Your task to perform on an android device: check google app version Image 0: 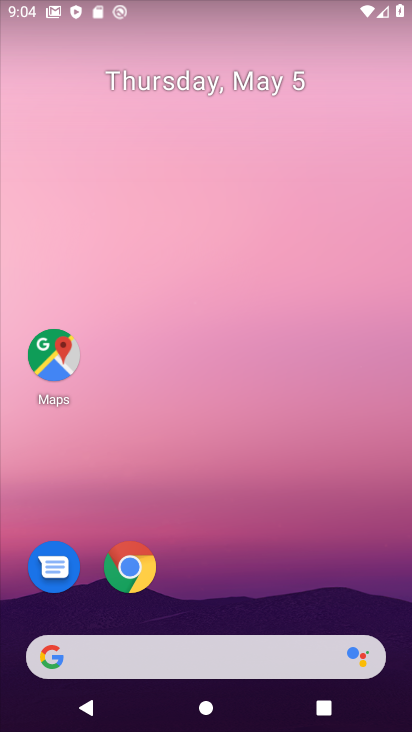
Step 0: drag from (232, 602) to (248, 100)
Your task to perform on an android device: check google app version Image 1: 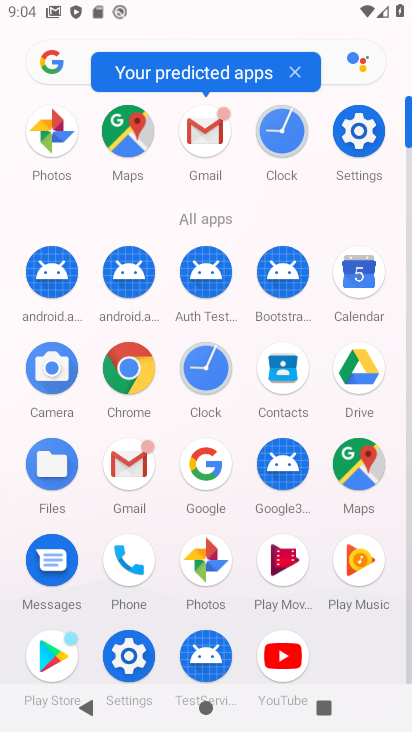
Step 1: drag from (89, 609) to (115, 319)
Your task to perform on an android device: check google app version Image 2: 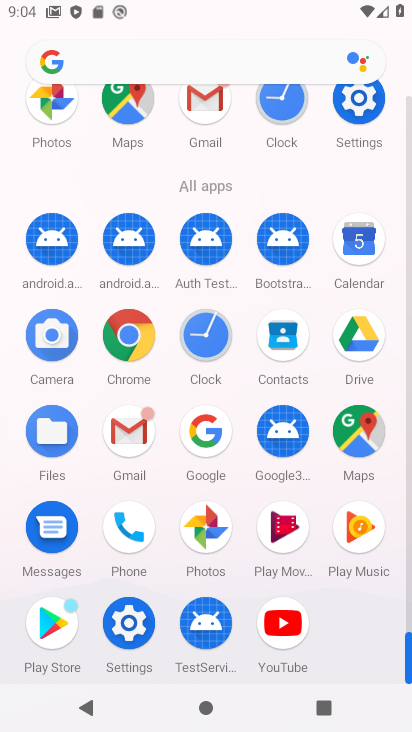
Step 2: drag from (223, 209) to (235, 596)
Your task to perform on an android device: check google app version Image 3: 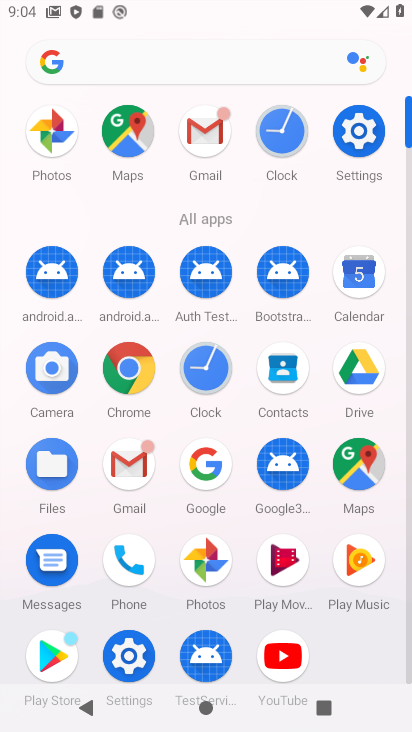
Step 3: click (222, 469)
Your task to perform on an android device: check google app version Image 4: 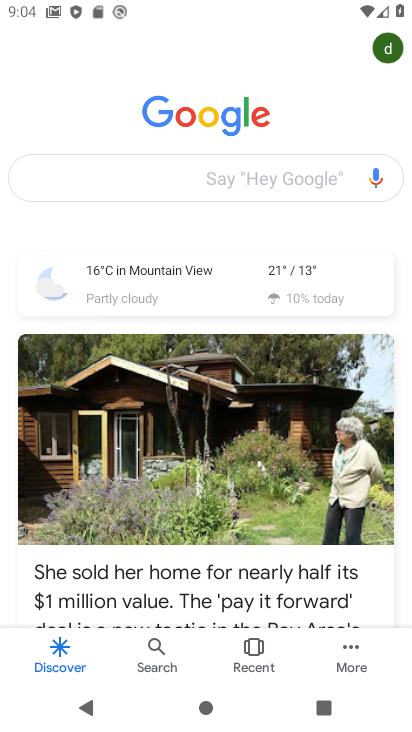
Step 4: click (381, 60)
Your task to perform on an android device: check google app version Image 5: 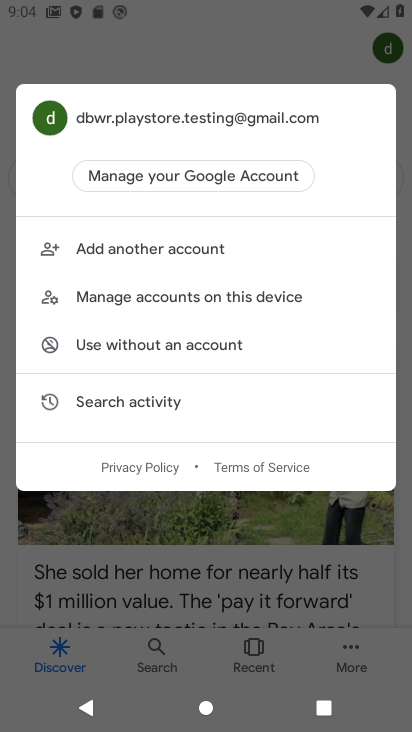
Step 5: click (110, 571)
Your task to perform on an android device: check google app version Image 6: 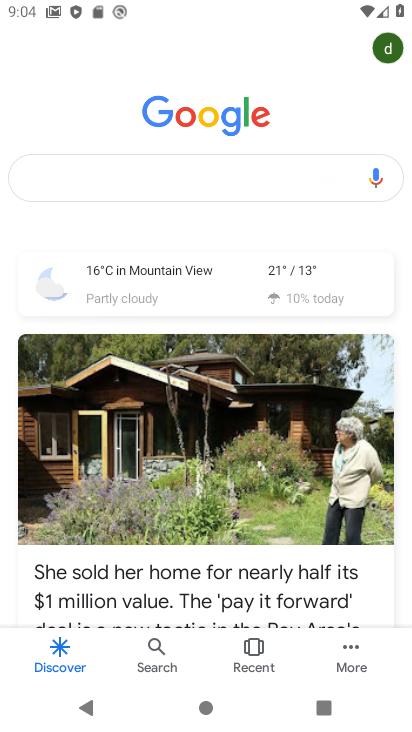
Step 6: click (348, 664)
Your task to perform on an android device: check google app version Image 7: 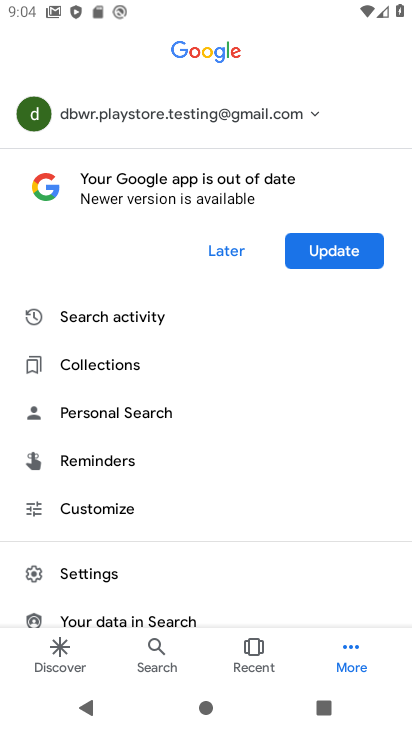
Step 7: drag from (183, 602) to (157, 284)
Your task to perform on an android device: check google app version Image 8: 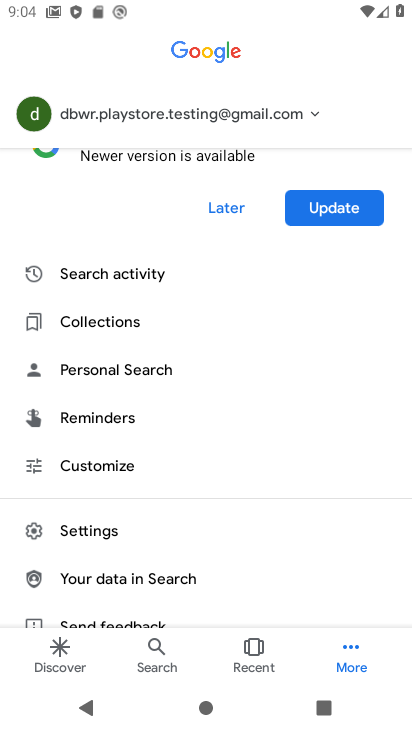
Step 8: drag from (157, 551) to (159, 280)
Your task to perform on an android device: check google app version Image 9: 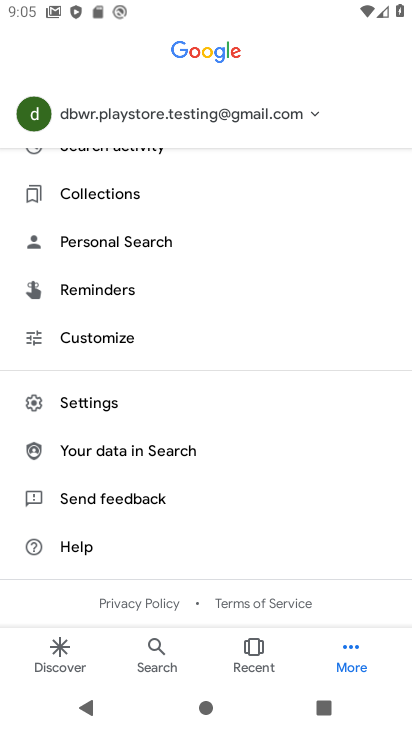
Step 9: drag from (148, 542) to (167, 296)
Your task to perform on an android device: check google app version Image 10: 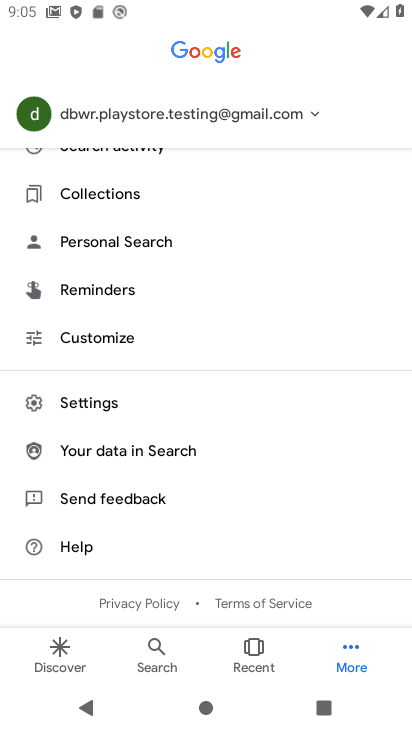
Step 10: drag from (217, 246) to (208, 300)
Your task to perform on an android device: check google app version Image 11: 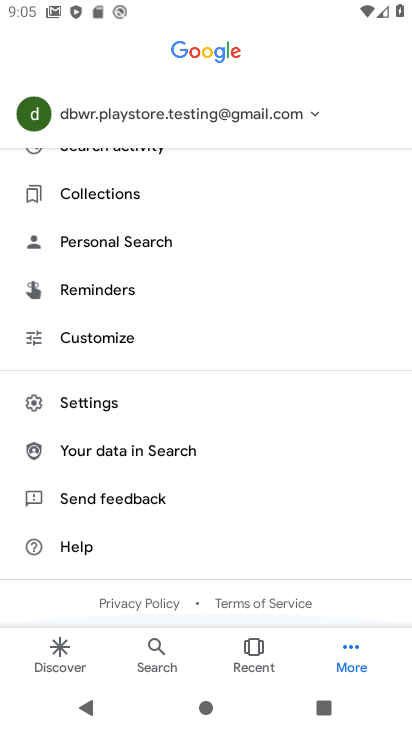
Step 11: drag from (205, 489) to (261, 400)
Your task to perform on an android device: check google app version Image 12: 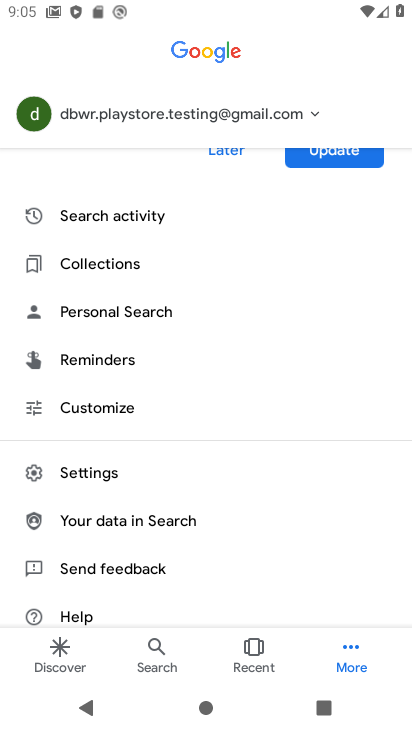
Step 12: drag from (112, 543) to (145, 338)
Your task to perform on an android device: check google app version Image 13: 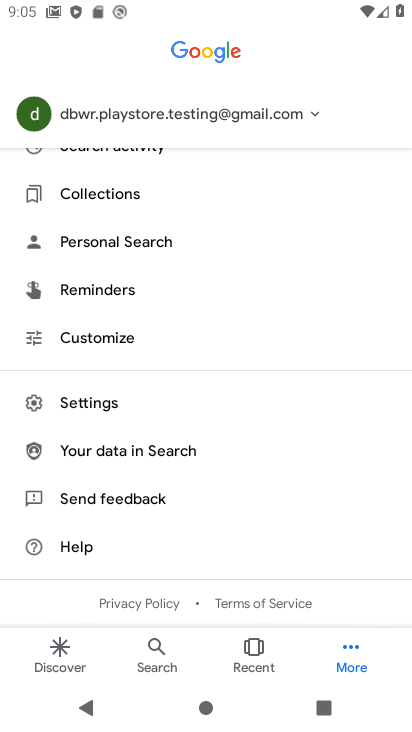
Step 13: click (102, 551)
Your task to perform on an android device: check google app version Image 14: 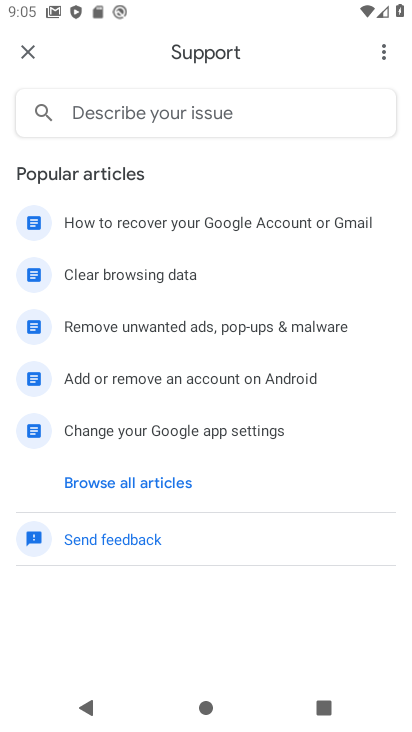
Step 14: press back button
Your task to perform on an android device: check google app version Image 15: 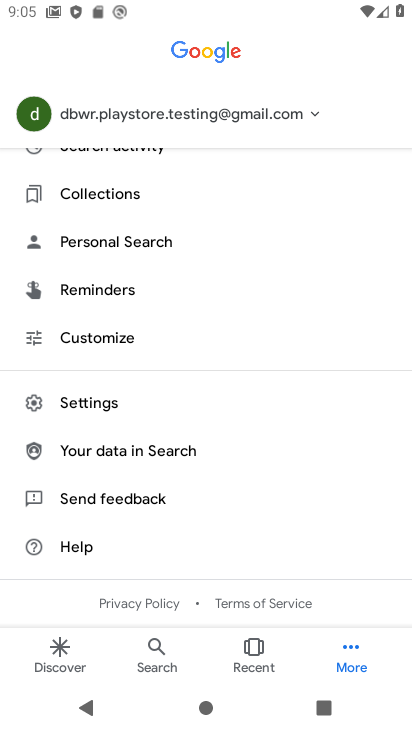
Step 15: click (118, 408)
Your task to perform on an android device: check google app version Image 16: 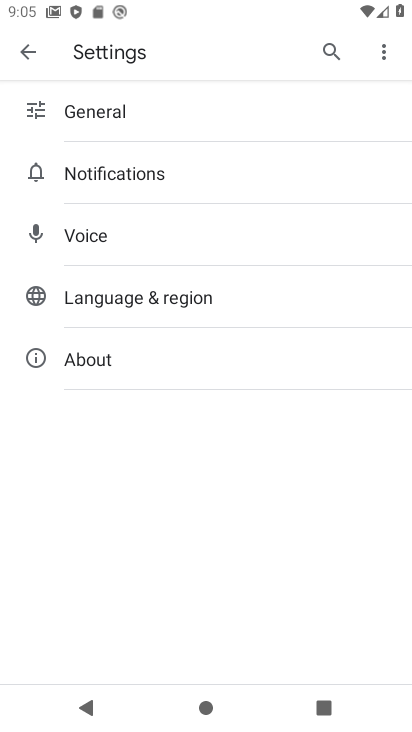
Step 16: click (120, 358)
Your task to perform on an android device: check google app version Image 17: 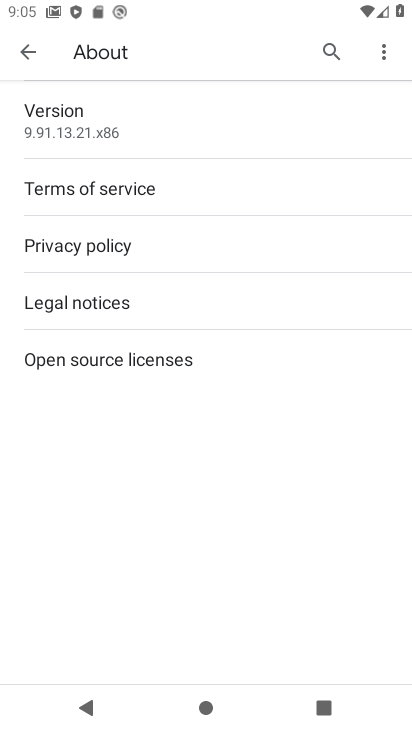
Step 17: click (98, 131)
Your task to perform on an android device: check google app version Image 18: 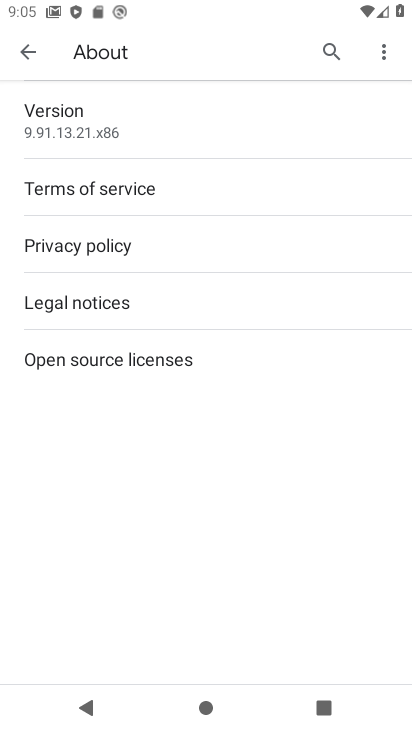
Step 18: click (96, 134)
Your task to perform on an android device: check google app version Image 19: 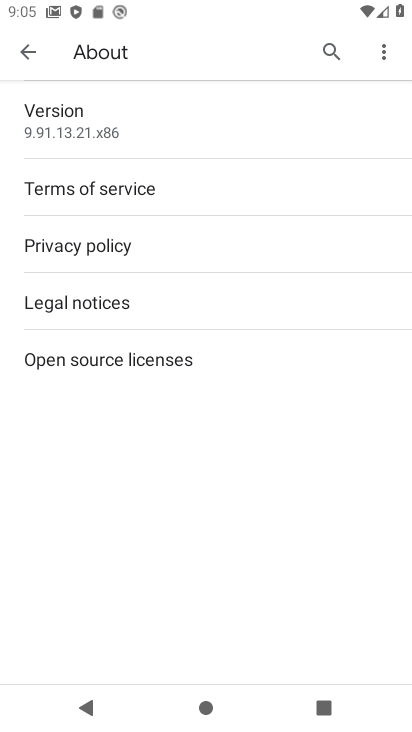
Step 19: click (74, 115)
Your task to perform on an android device: check google app version Image 20: 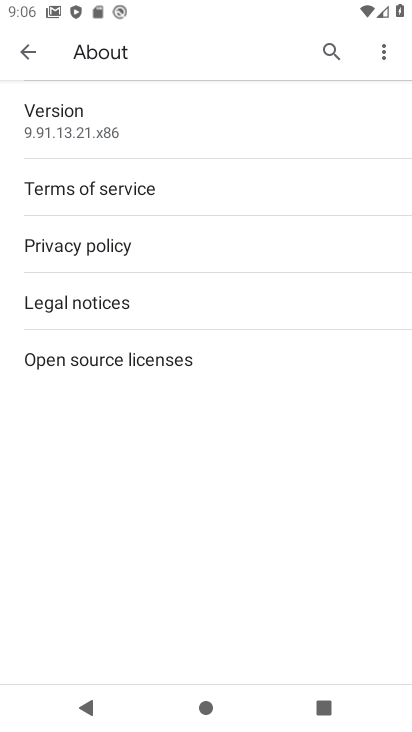
Step 20: task complete